Your task to perform on an android device: Go to internet settings Image 0: 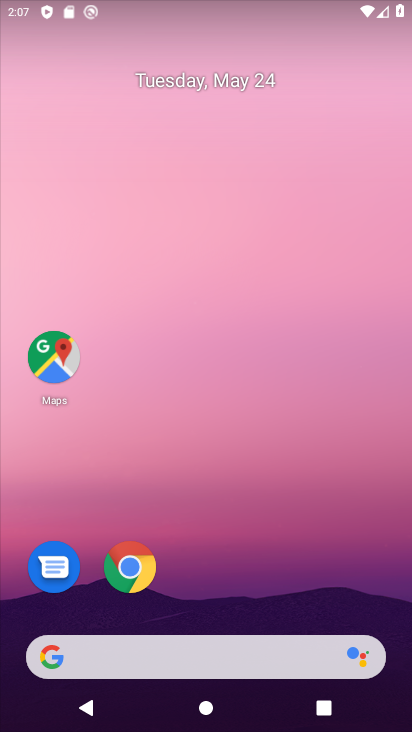
Step 0: drag from (238, 539) to (232, 208)
Your task to perform on an android device: Go to internet settings Image 1: 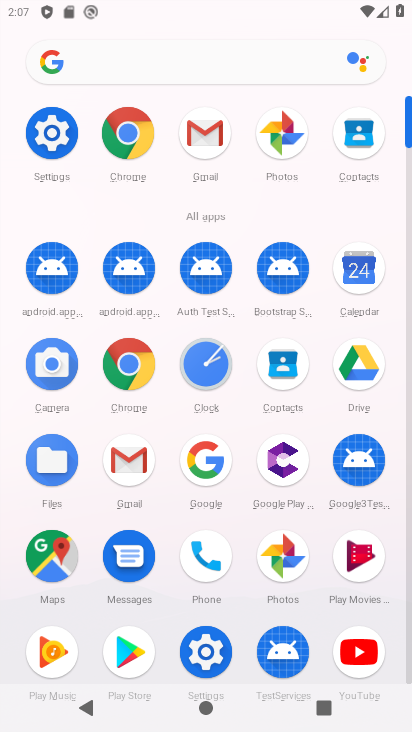
Step 1: click (66, 138)
Your task to perform on an android device: Go to internet settings Image 2: 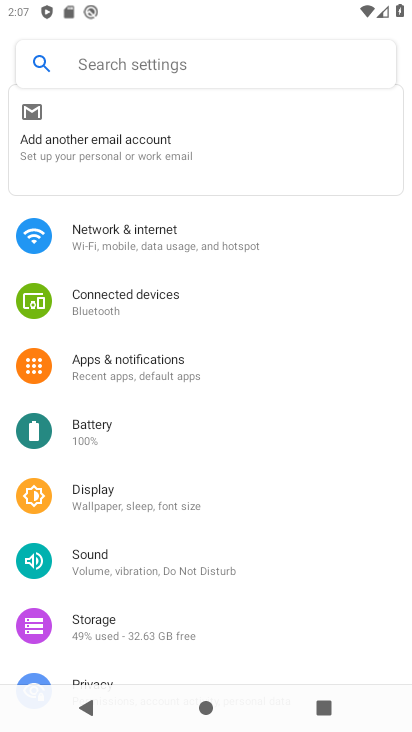
Step 2: click (202, 239)
Your task to perform on an android device: Go to internet settings Image 3: 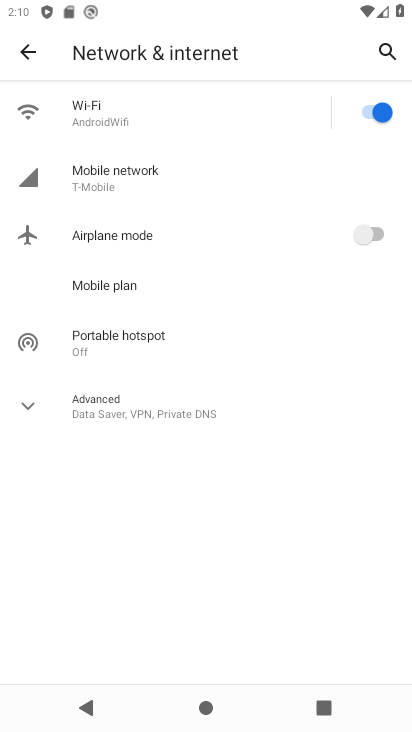
Step 3: task complete